Your task to perform on an android device: Go to Yahoo.com Image 0: 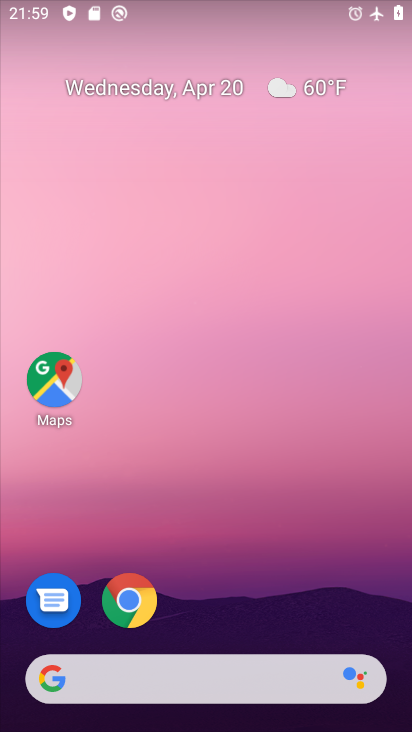
Step 0: drag from (188, 642) to (152, 65)
Your task to perform on an android device: Go to Yahoo.com Image 1: 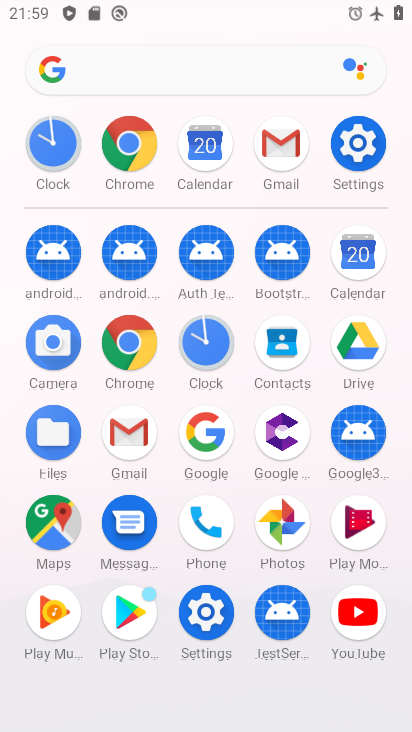
Step 1: click (135, 152)
Your task to perform on an android device: Go to Yahoo.com Image 2: 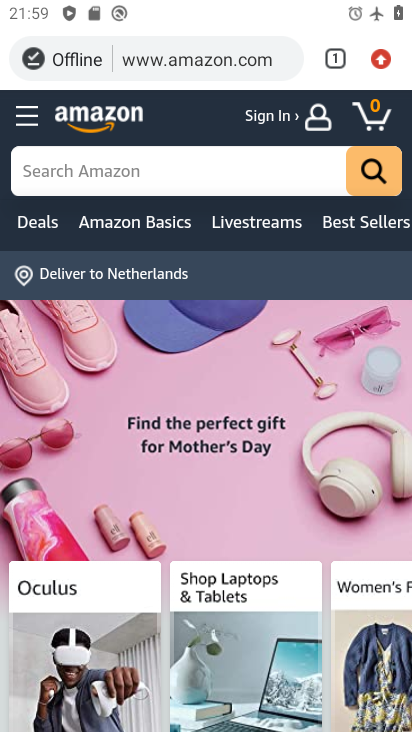
Step 2: click (330, 54)
Your task to perform on an android device: Go to Yahoo.com Image 3: 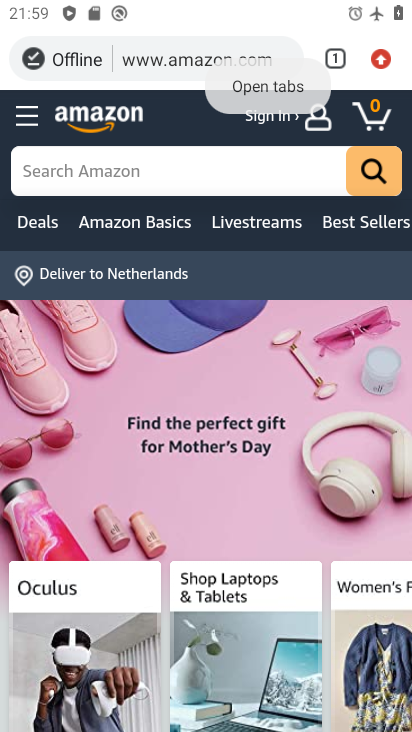
Step 3: click (330, 59)
Your task to perform on an android device: Go to Yahoo.com Image 4: 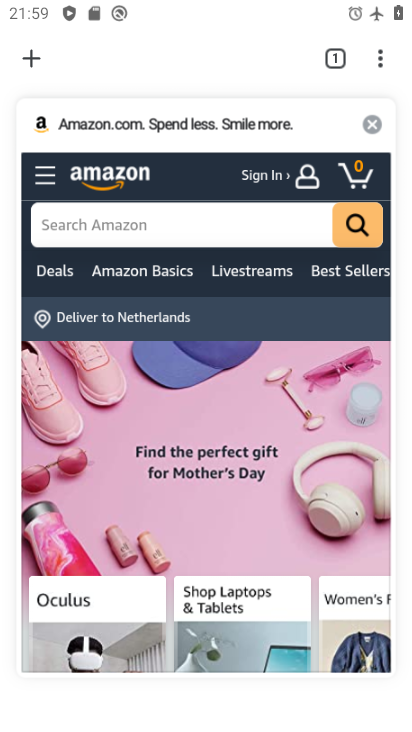
Step 4: click (28, 63)
Your task to perform on an android device: Go to Yahoo.com Image 5: 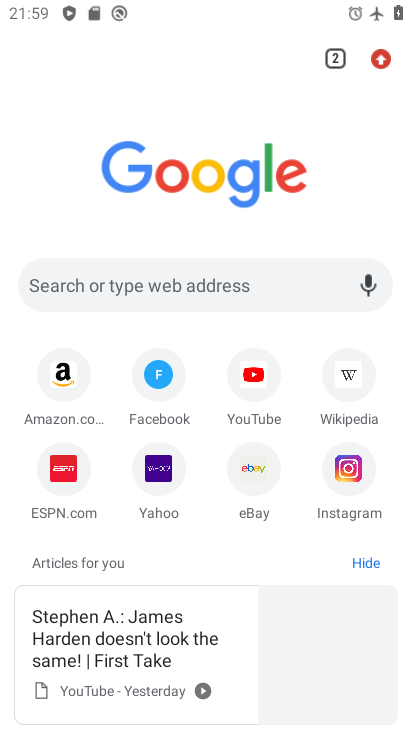
Step 5: click (156, 457)
Your task to perform on an android device: Go to Yahoo.com Image 6: 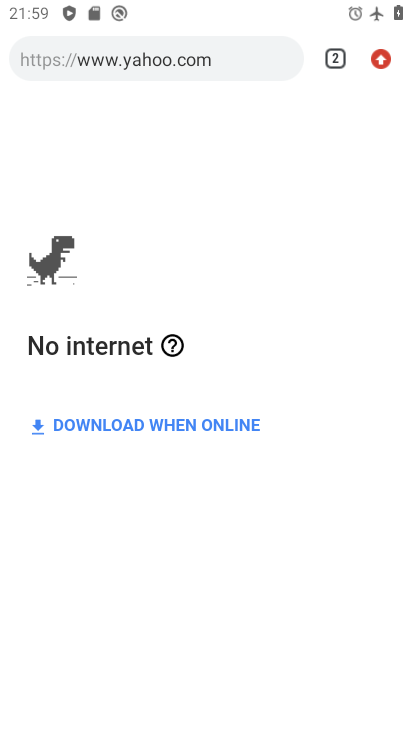
Step 6: task complete